Your task to perform on an android device: turn off data saver in the chrome app Image 0: 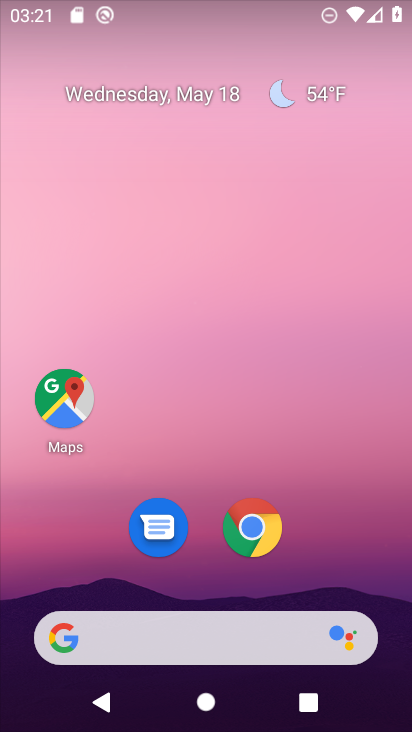
Step 0: drag from (206, 590) to (154, 2)
Your task to perform on an android device: turn off data saver in the chrome app Image 1: 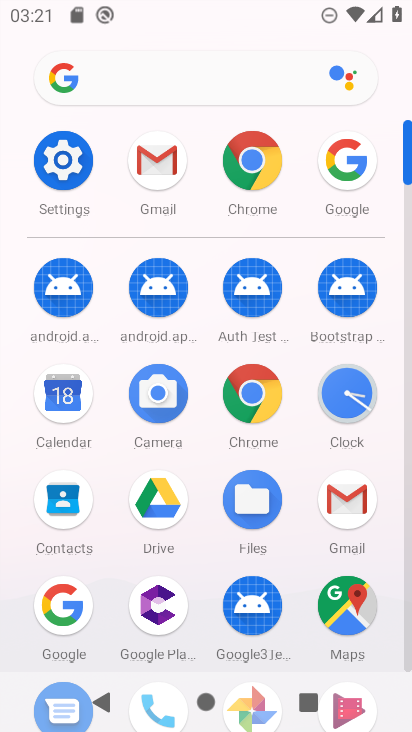
Step 1: click (249, 395)
Your task to perform on an android device: turn off data saver in the chrome app Image 2: 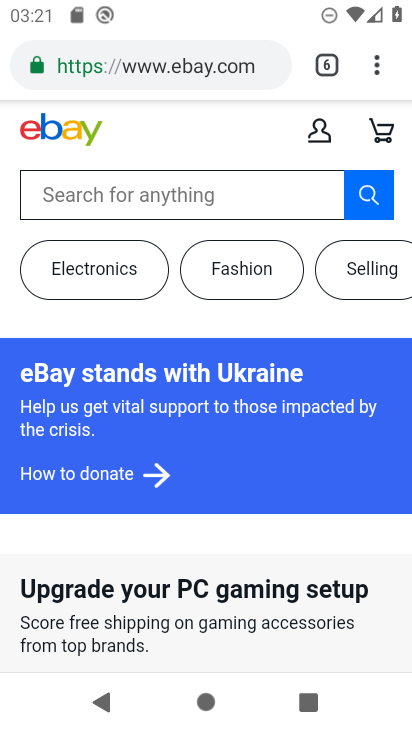
Step 2: click (372, 69)
Your task to perform on an android device: turn off data saver in the chrome app Image 3: 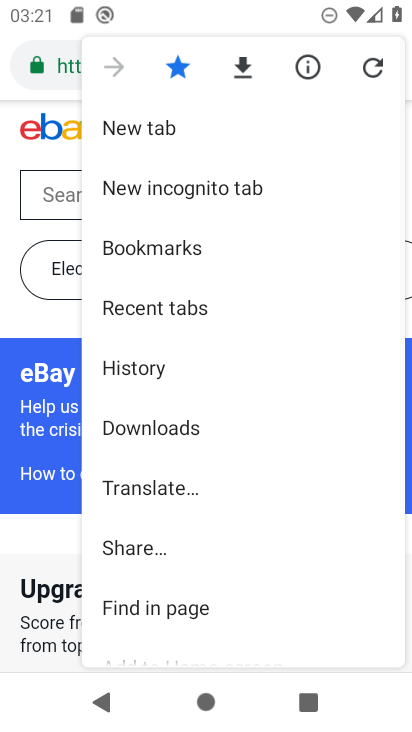
Step 3: drag from (180, 523) to (152, 82)
Your task to perform on an android device: turn off data saver in the chrome app Image 4: 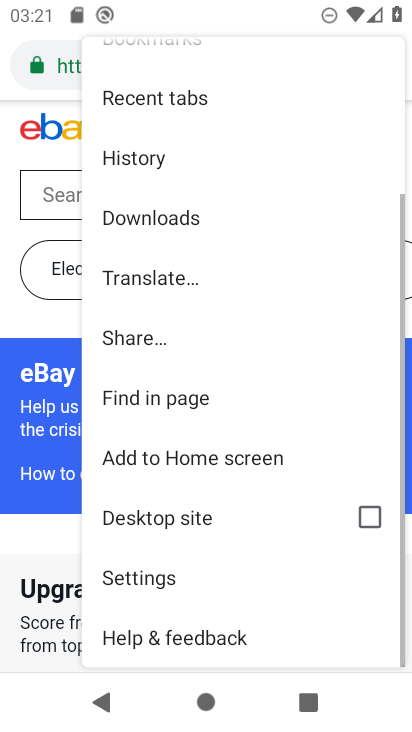
Step 4: click (149, 584)
Your task to perform on an android device: turn off data saver in the chrome app Image 5: 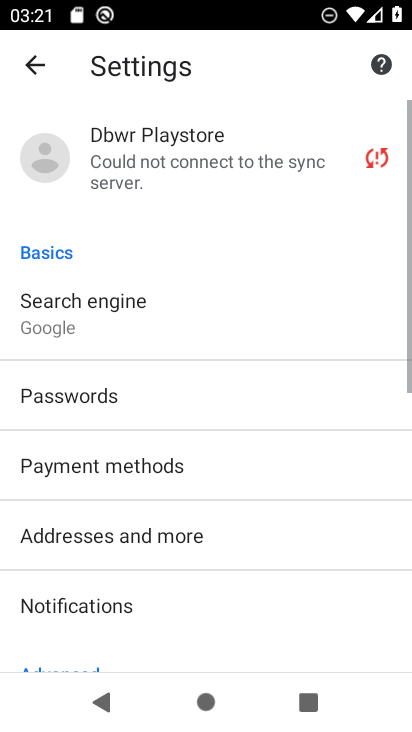
Step 5: drag from (162, 580) to (213, 255)
Your task to perform on an android device: turn off data saver in the chrome app Image 6: 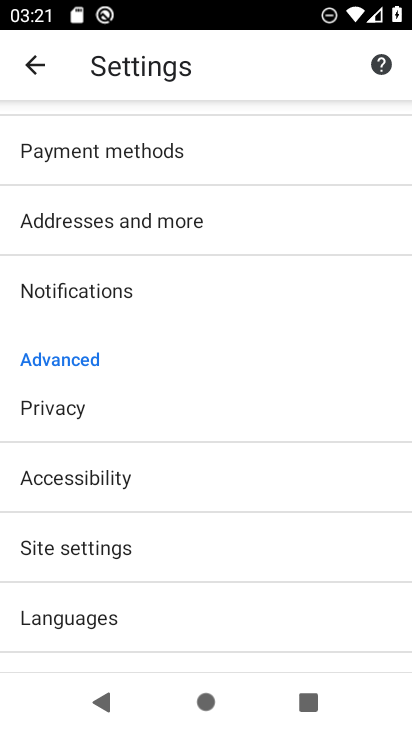
Step 6: drag from (200, 585) to (179, 180)
Your task to perform on an android device: turn off data saver in the chrome app Image 7: 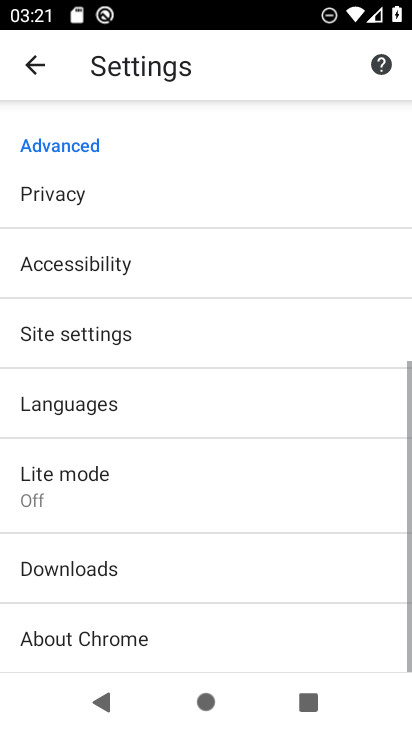
Step 7: click (72, 487)
Your task to perform on an android device: turn off data saver in the chrome app Image 8: 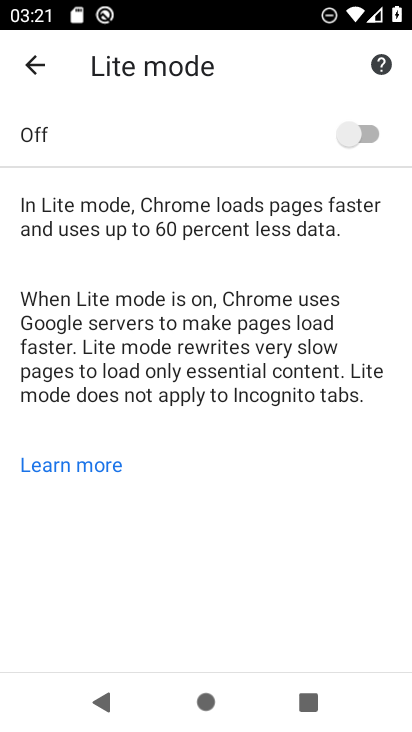
Step 8: task complete